Your task to perform on an android device: check android version Image 0: 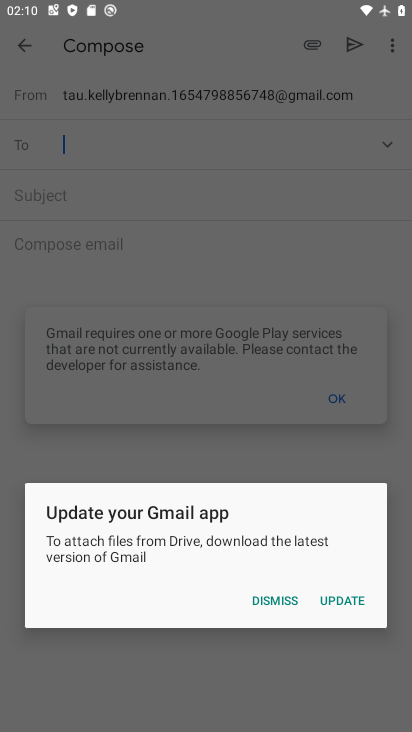
Step 0: press home button
Your task to perform on an android device: check android version Image 1: 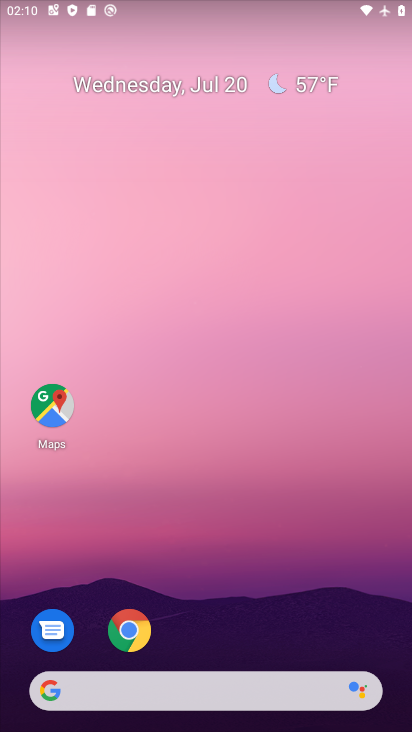
Step 1: drag from (316, 549) to (248, 64)
Your task to perform on an android device: check android version Image 2: 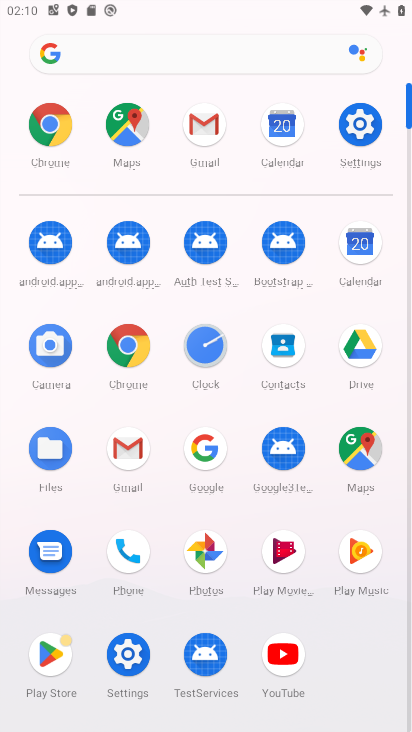
Step 2: click (377, 135)
Your task to perform on an android device: check android version Image 3: 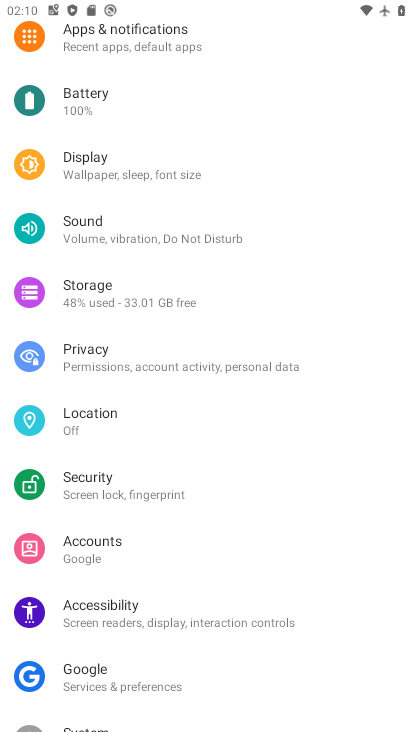
Step 3: drag from (140, 596) to (138, 128)
Your task to perform on an android device: check android version Image 4: 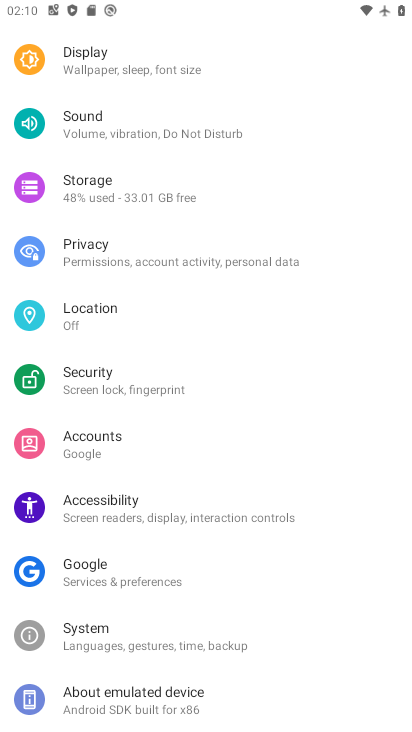
Step 4: click (117, 695)
Your task to perform on an android device: check android version Image 5: 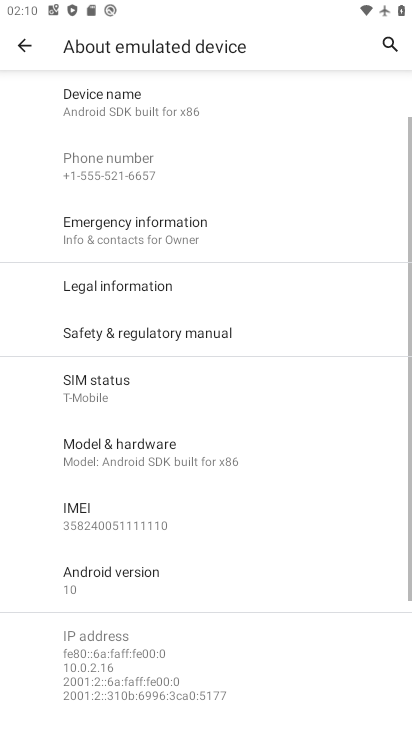
Step 5: click (147, 581)
Your task to perform on an android device: check android version Image 6: 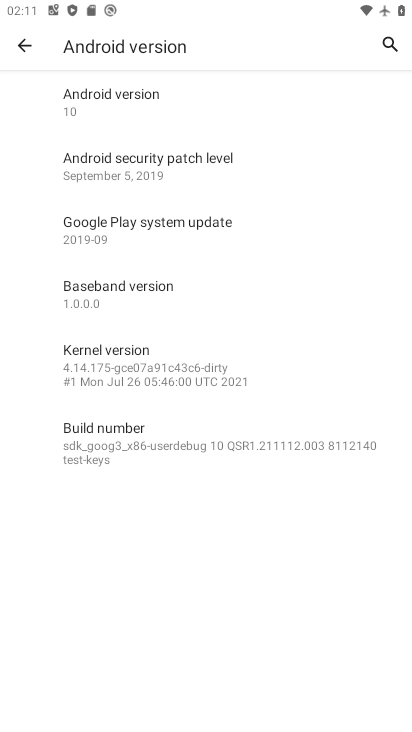
Step 6: click (137, 98)
Your task to perform on an android device: check android version Image 7: 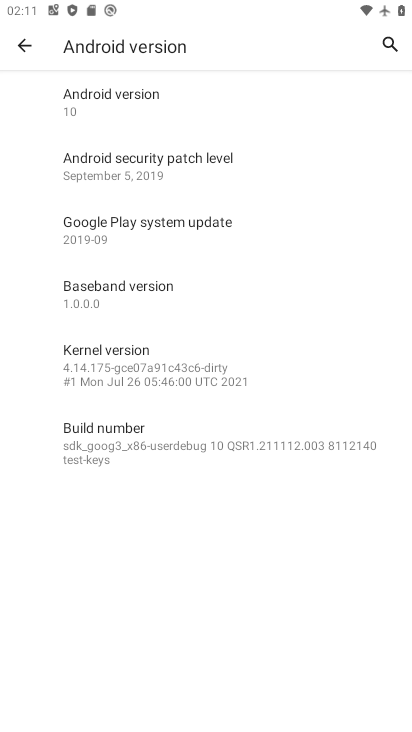
Step 7: task complete